Your task to perform on an android device: turn on showing notifications on the lock screen Image 0: 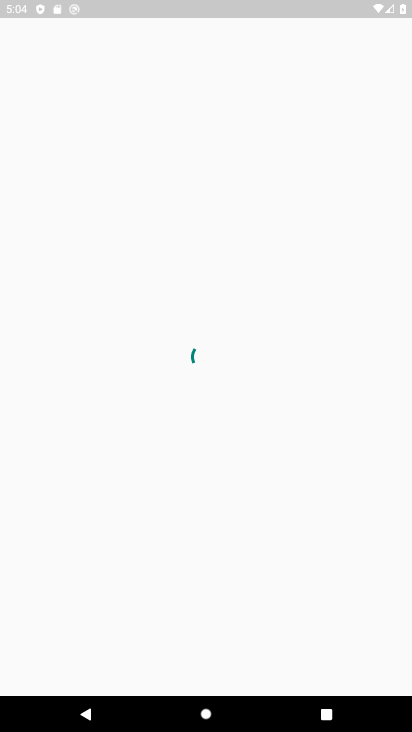
Step 0: press home button
Your task to perform on an android device: turn on showing notifications on the lock screen Image 1: 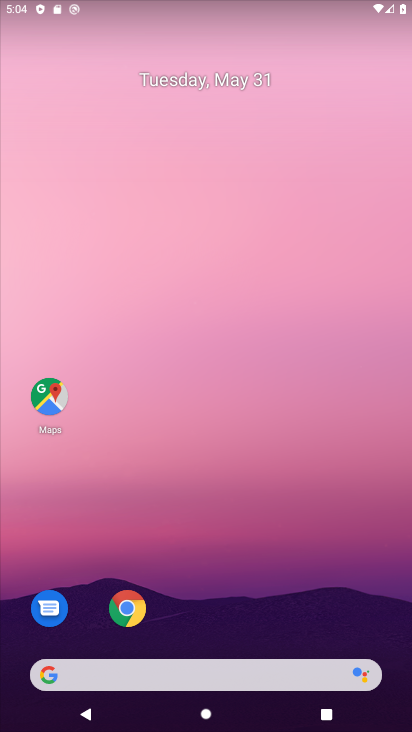
Step 1: drag from (218, 592) to (207, 83)
Your task to perform on an android device: turn on showing notifications on the lock screen Image 2: 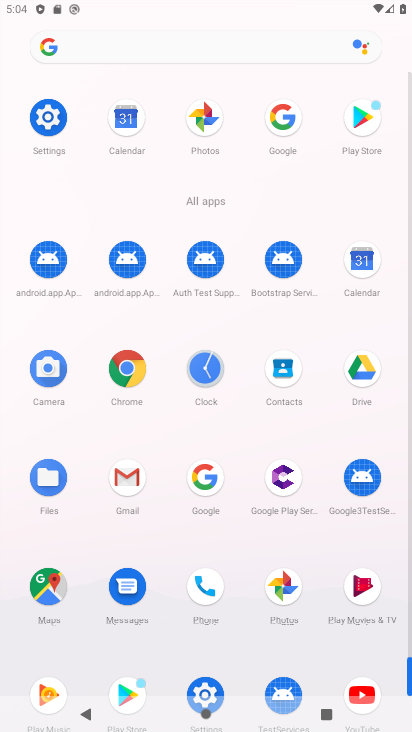
Step 2: click (47, 117)
Your task to perform on an android device: turn on showing notifications on the lock screen Image 3: 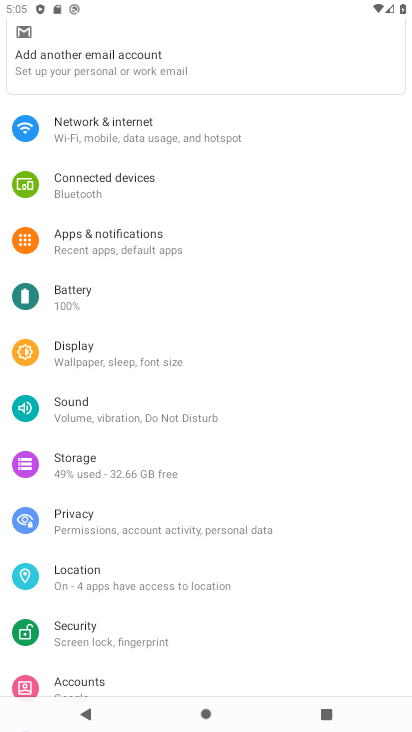
Step 3: click (118, 235)
Your task to perform on an android device: turn on showing notifications on the lock screen Image 4: 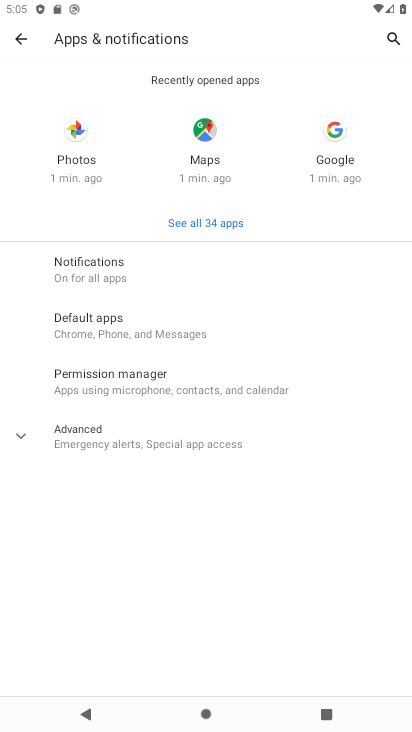
Step 4: click (97, 280)
Your task to perform on an android device: turn on showing notifications on the lock screen Image 5: 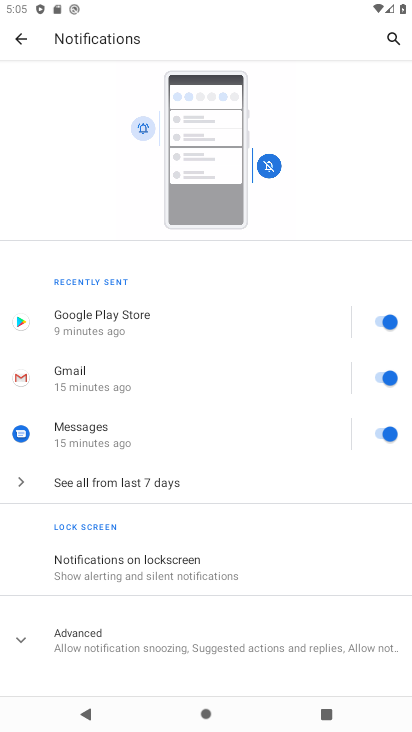
Step 5: click (134, 562)
Your task to perform on an android device: turn on showing notifications on the lock screen Image 6: 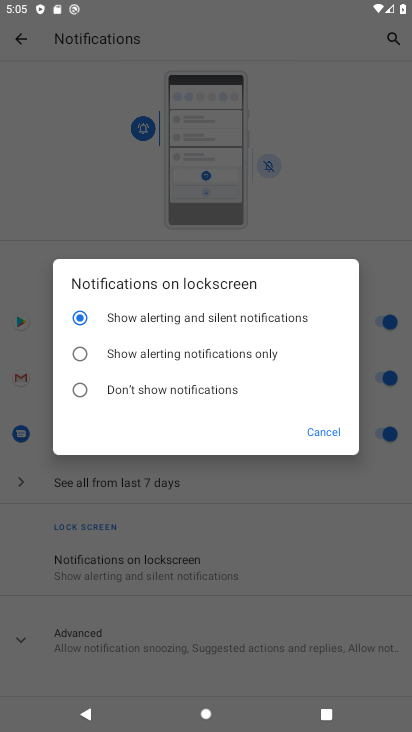
Step 6: click (80, 314)
Your task to perform on an android device: turn on showing notifications on the lock screen Image 7: 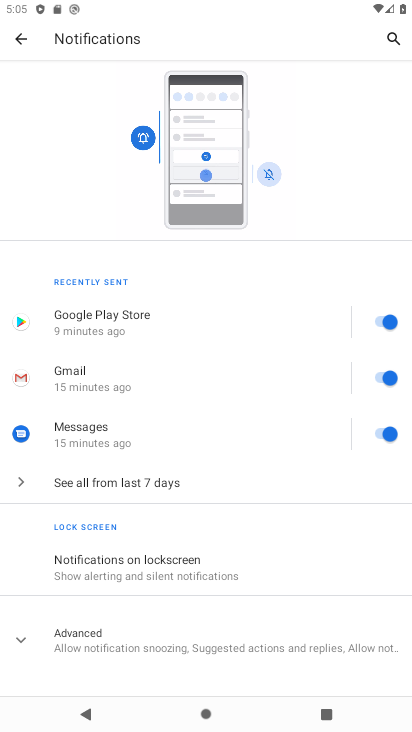
Step 7: task complete